Your task to perform on an android device: turn off improve location accuracy Image 0: 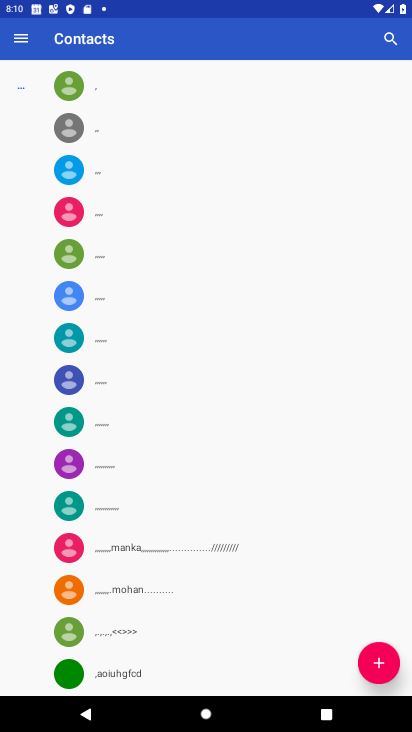
Step 0: press home button
Your task to perform on an android device: turn off improve location accuracy Image 1: 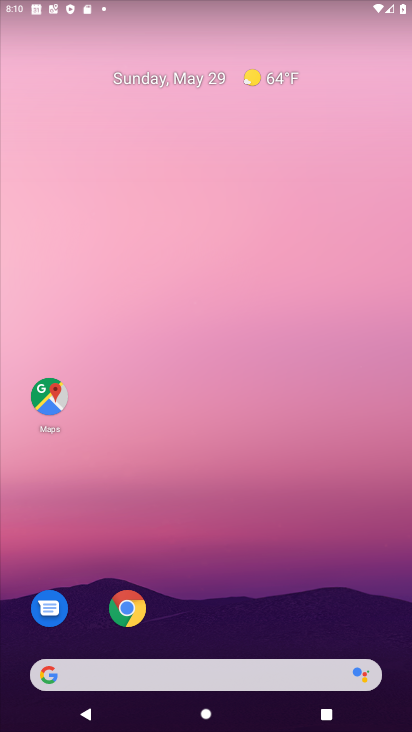
Step 1: drag from (214, 556) to (130, 87)
Your task to perform on an android device: turn off improve location accuracy Image 2: 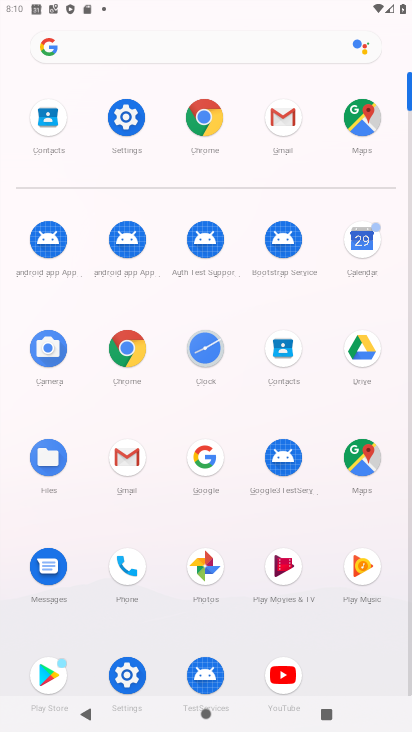
Step 2: click (125, 116)
Your task to perform on an android device: turn off improve location accuracy Image 3: 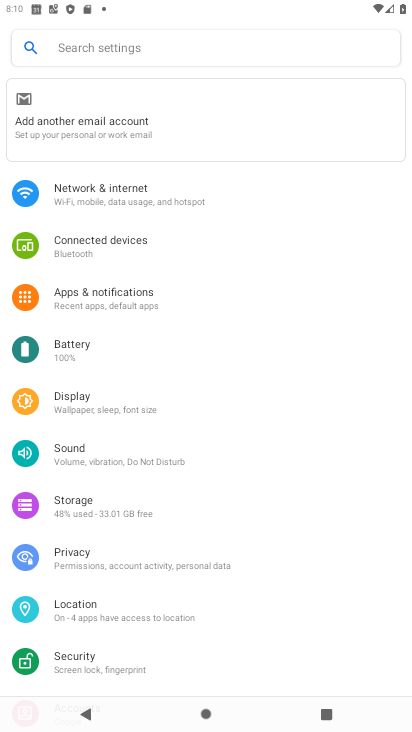
Step 3: click (74, 615)
Your task to perform on an android device: turn off improve location accuracy Image 4: 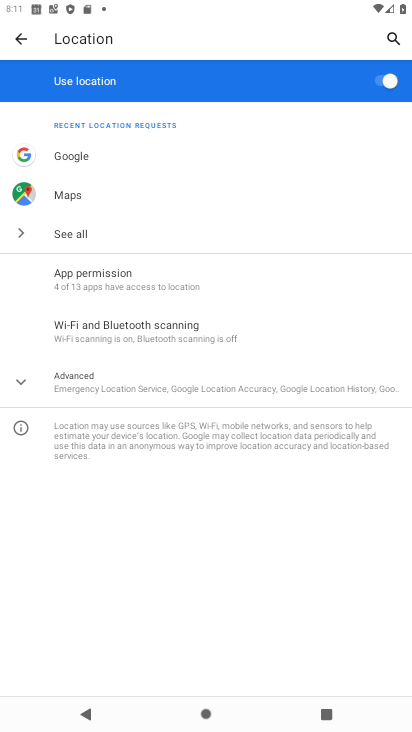
Step 4: click (73, 372)
Your task to perform on an android device: turn off improve location accuracy Image 5: 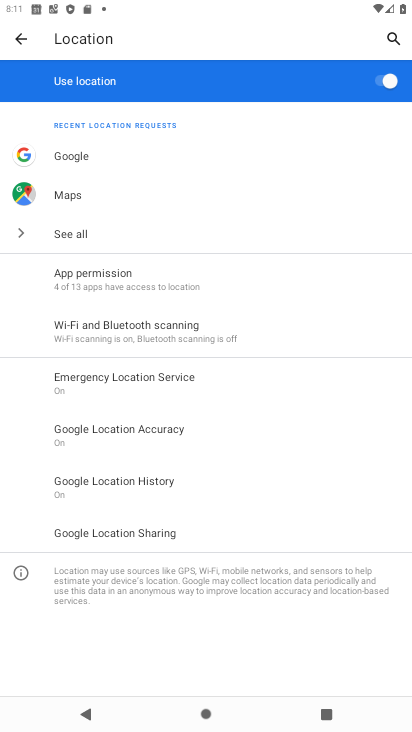
Step 5: click (137, 427)
Your task to perform on an android device: turn off improve location accuracy Image 6: 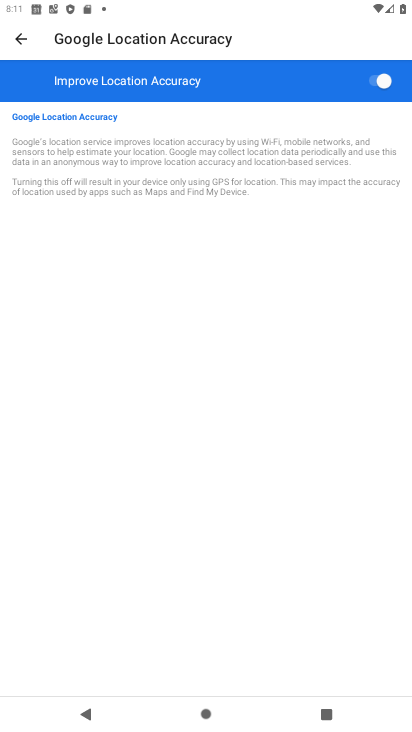
Step 6: click (380, 87)
Your task to perform on an android device: turn off improve location accuracy Image 7: 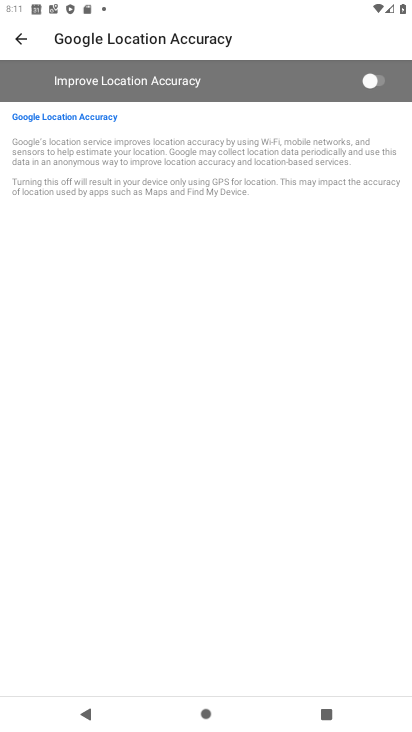
Step 7: task complete